Your task to perform on an android device: Empty the shopping cart on ebay.com. Image 0: 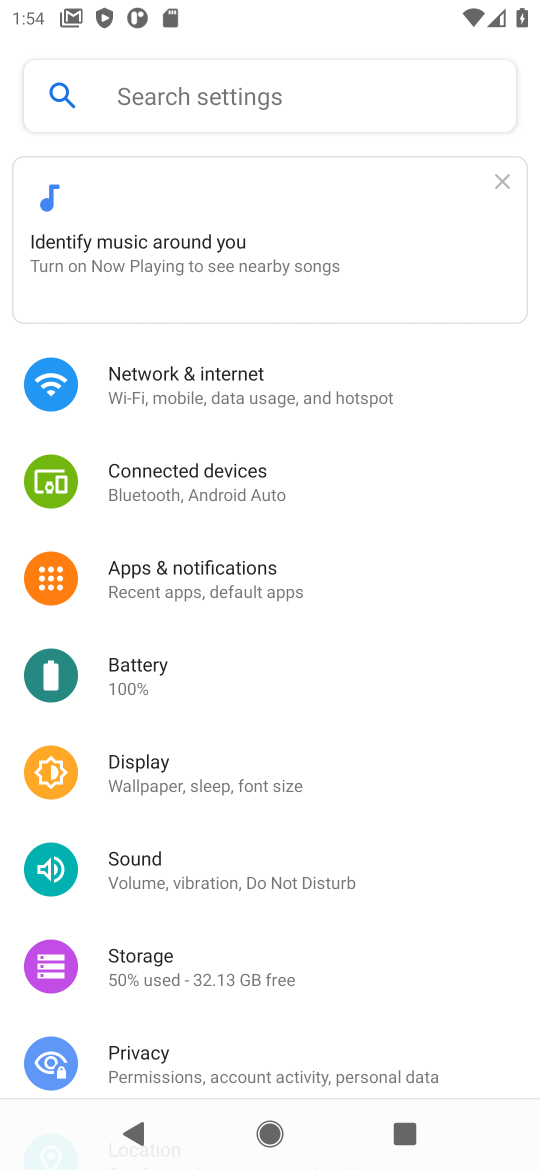
Step 0: press home button
Your task to perform on an android device: Empty the shopping cart on ebay.com. Image 1: 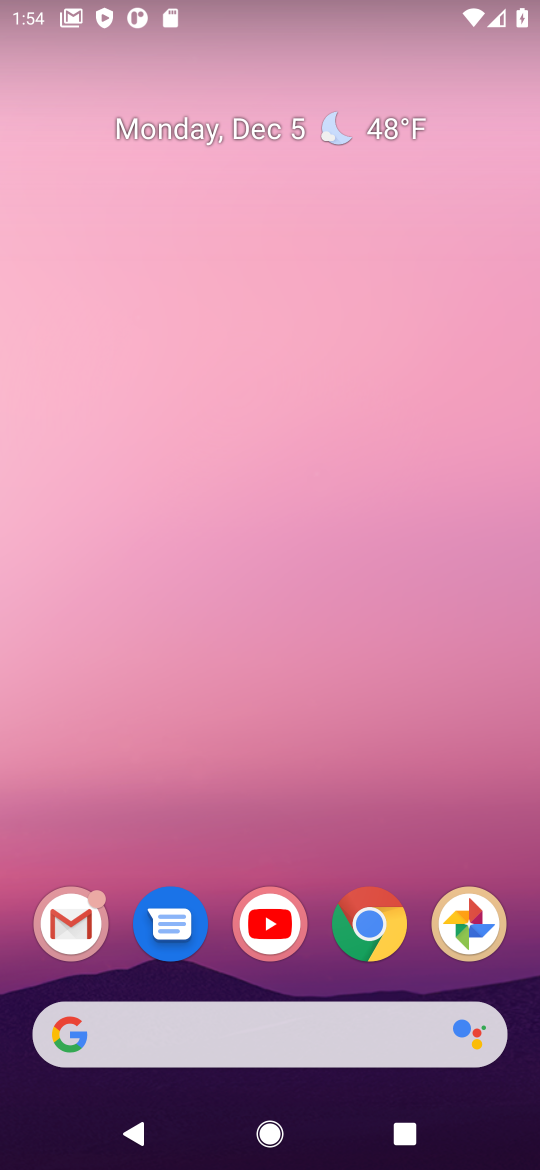
Step 1: click (237, 1034)
Your task to perform on an android device: Empty the shopping cart on ebay.com. Image 2: 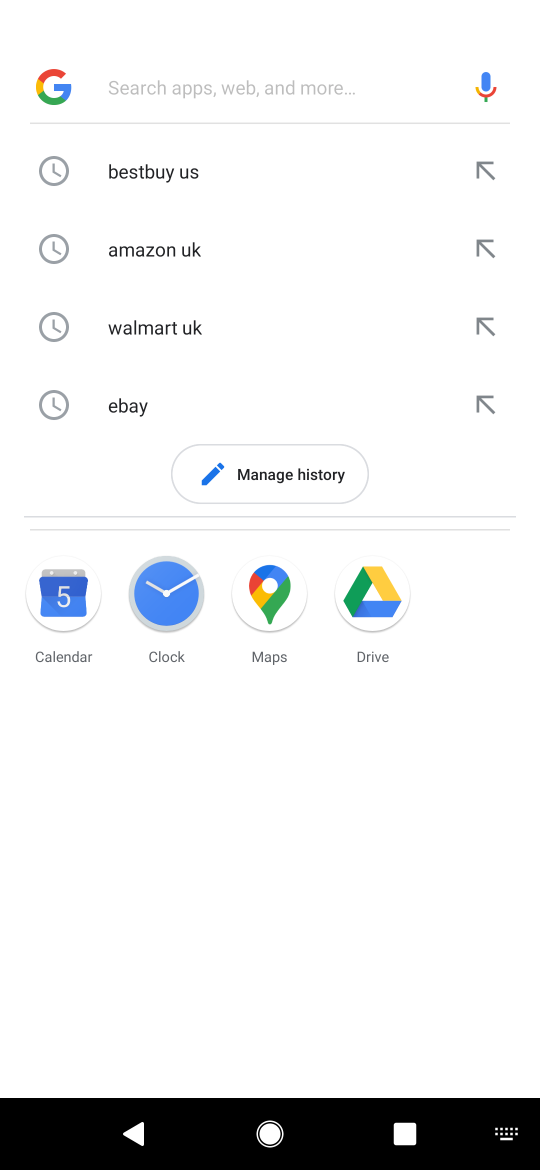
Step 2: type "ebay.com"
Your task to perform on an android device: Empty the shopping cart on ebay.com. Image 3: 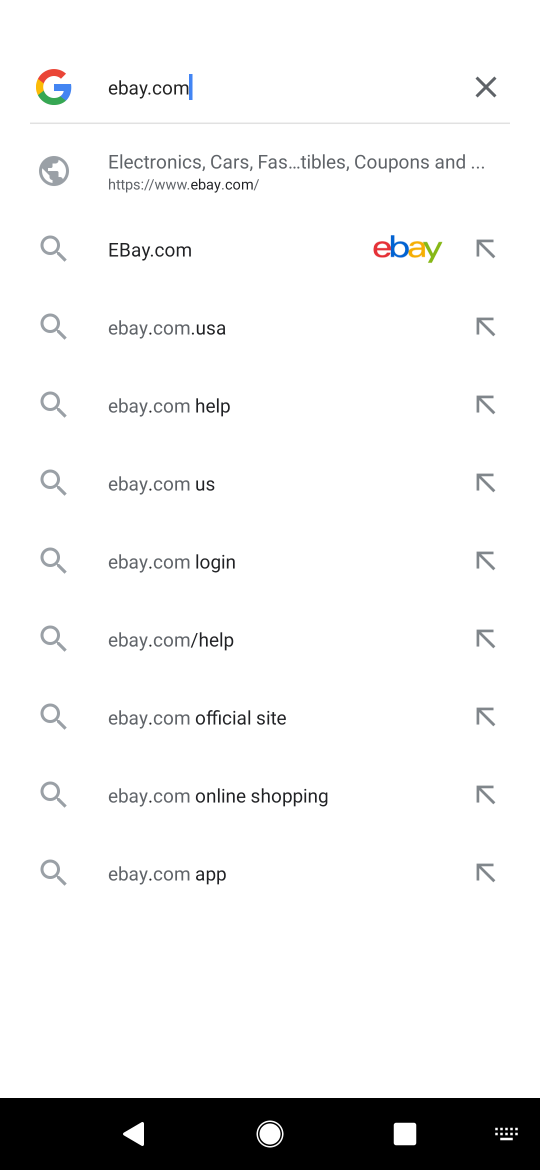
Step 3: click (245, 191)
Your task to perform on an android device: Empty the shopping cart on ebay.com. Image 4: 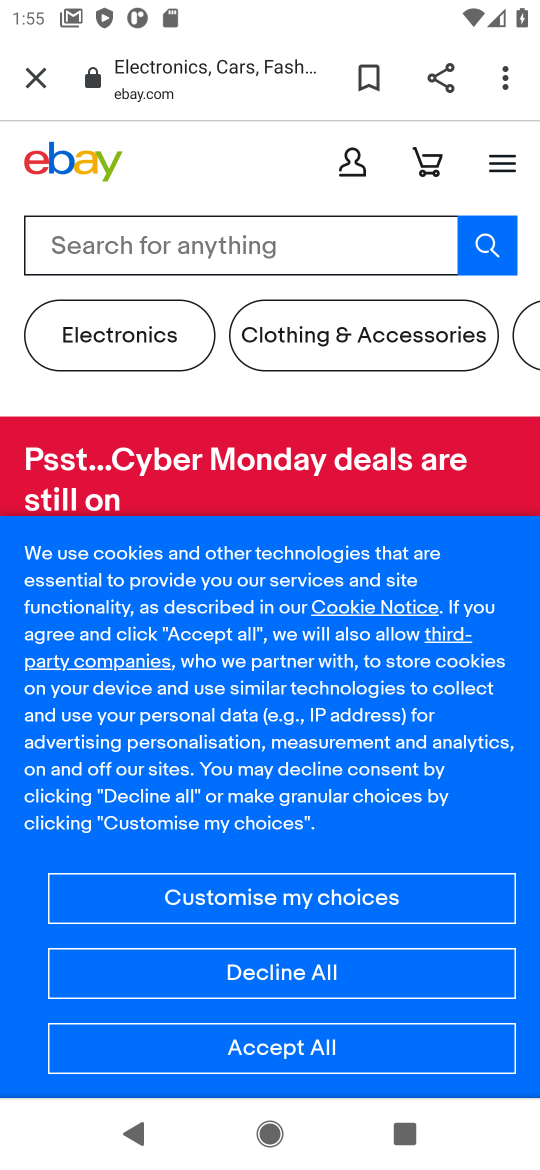
Step 4: task complete